Your task to perform on an android device: Open Amazon Image 0: 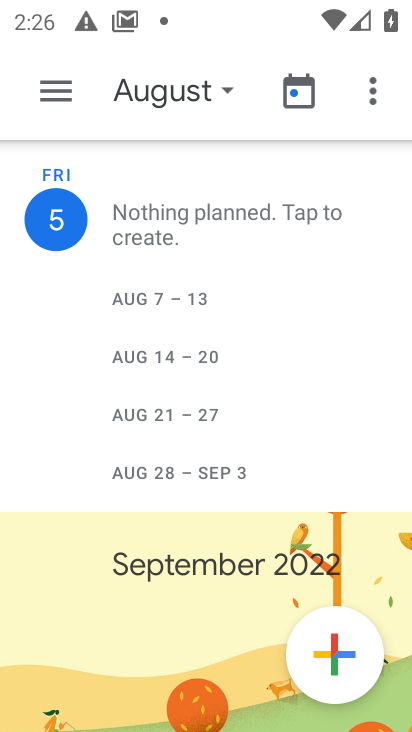
Step 0: press home button
Your task to perform on an android device: Open Amazon Image 1: 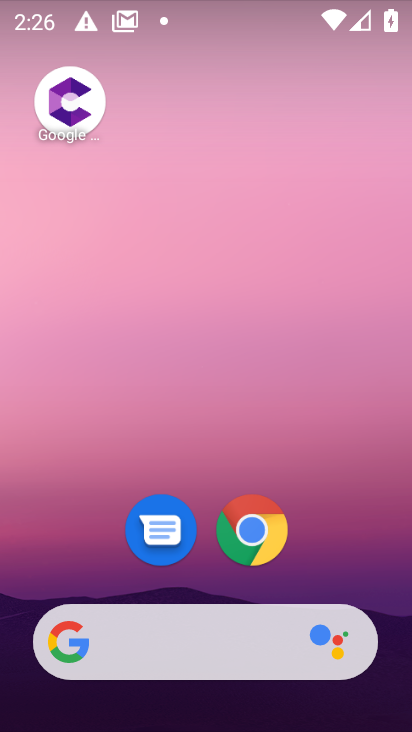
Step 1: click (257, 534)
Your task to perform on an android device: Open Amazon Image 2: 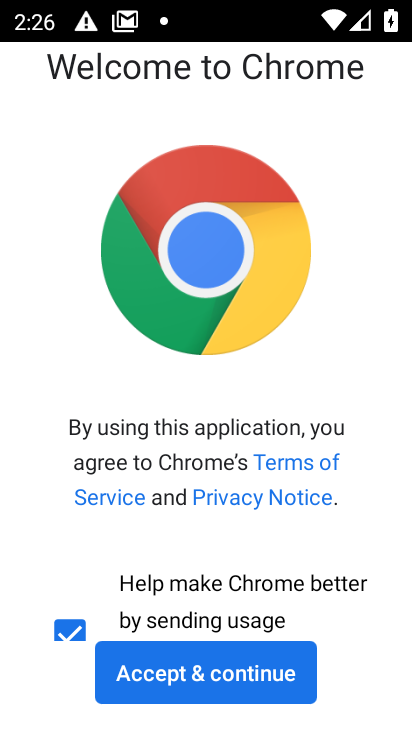
Step 2: click (212, 649)
Your task to perform on an android device: Open Amazon Image 3: 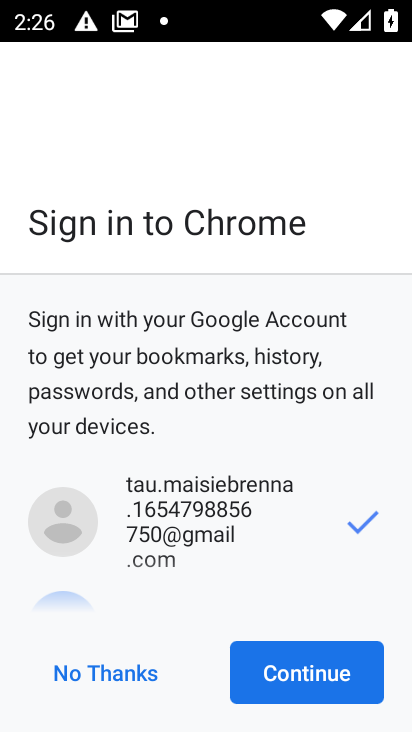
Step 3: click (214, 676)
Your task to perform on an android device: Open Amazon Image 4: 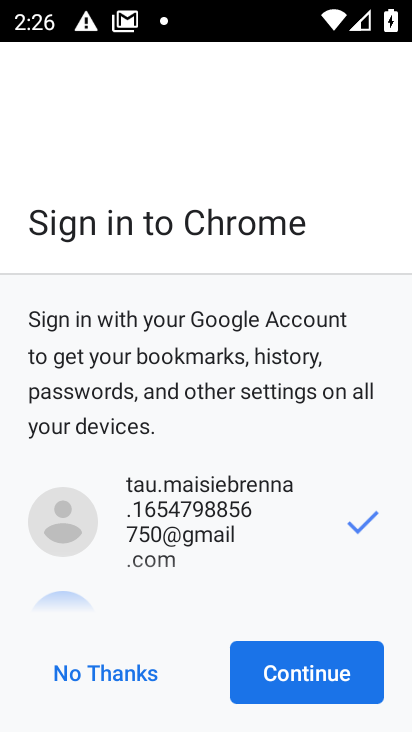
Step 4: click (277, 657)
Your task to perform on an android device: Open Amazon Image 5: 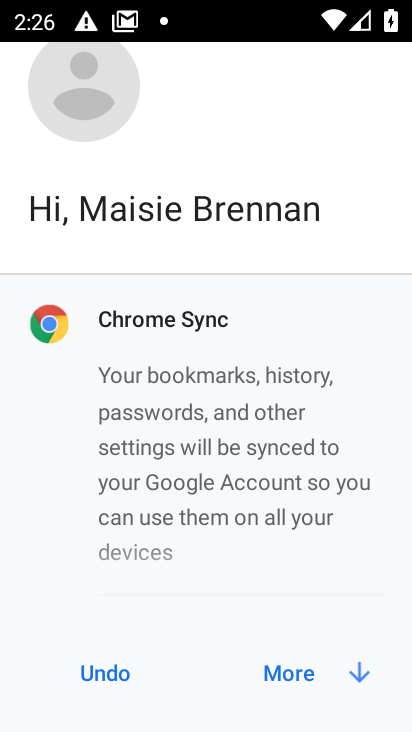
Step 5: click (287, 674)
Your task to perform on an android device: Open Amazon Image 6: 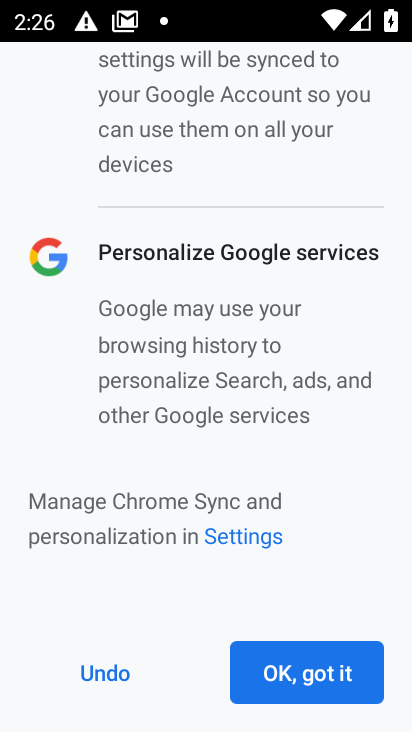
Step 6: click (287, 674)
Your task to perform on an android device: Open Amazon Image 7: 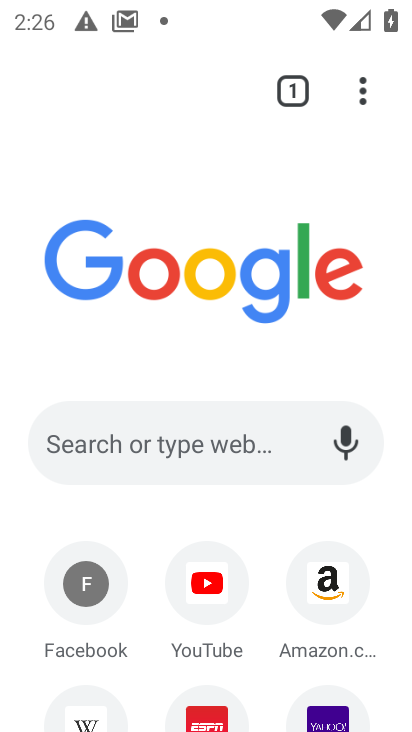
Step 7: click (319, 590)
Your task to perform on an android device: Open Amazon Image 8: 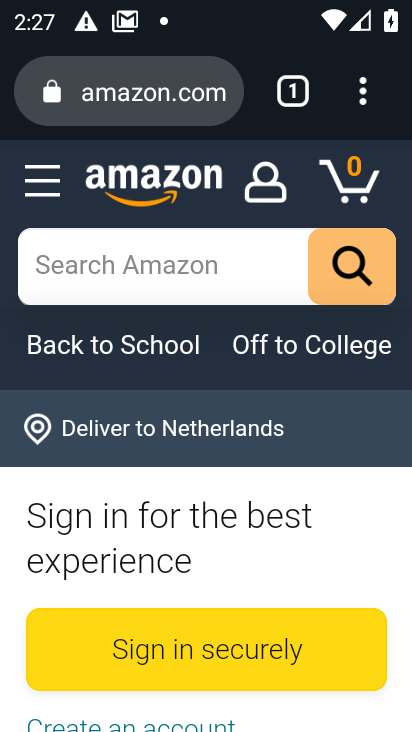
Step 8: task complete